Your task to perform on an android device: turn off smart reply in the gmail app Image 0: 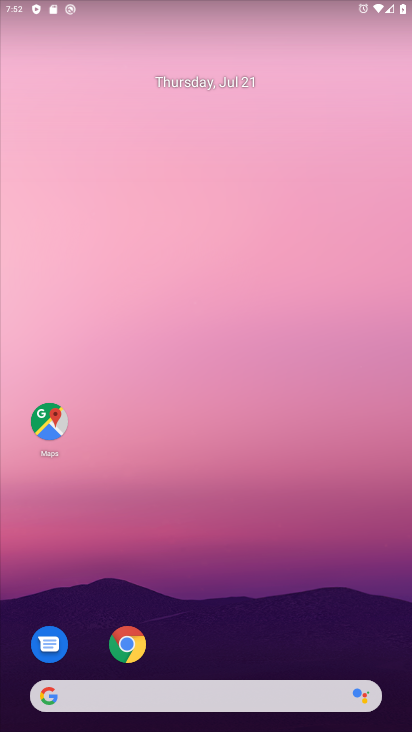
Step 0: drag from (285, 609) to (324, 139)
Your task to perform on an android device: turn off smart reply in the gmail app Image 1: 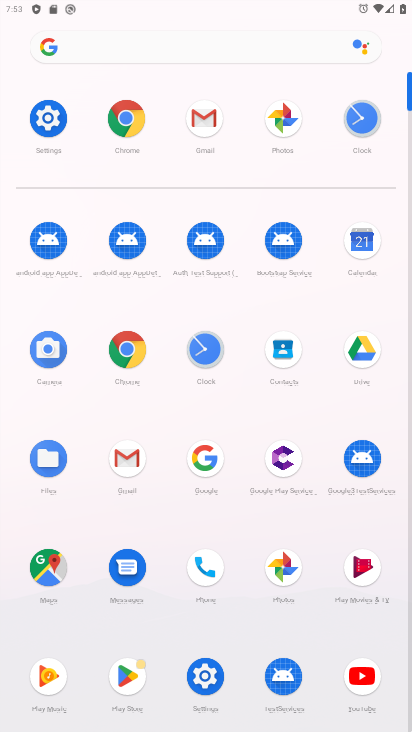
Step 1: click (128, 454)
Your task to perform on an android device: turn off smart reply in the gmail app Image 2: 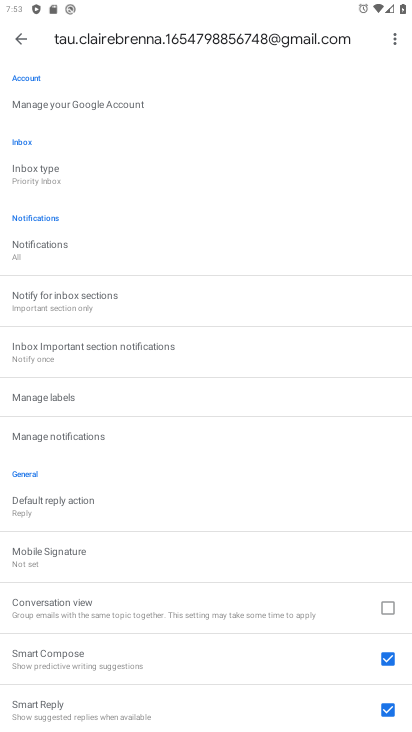
Step 2: drag from (281, 488) to (282, 388)
Your task to perform on an android device: turn off smart reply in the gmail app Image 3: 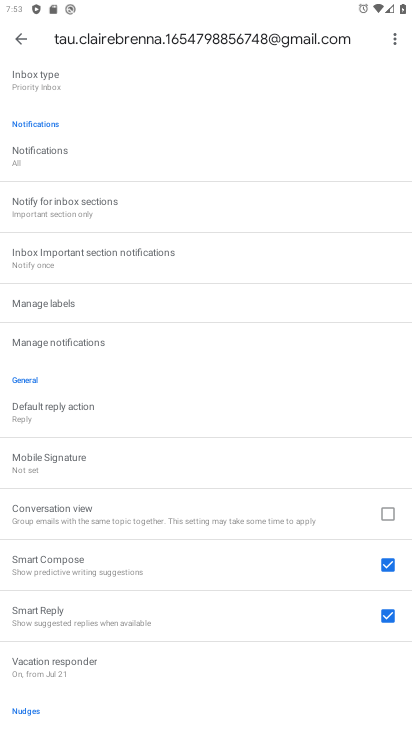
Step 3: drag from (271, 551) to (271, 439)
Your task to perform on an android device: turn off smart reply in the gmail app Image 4: 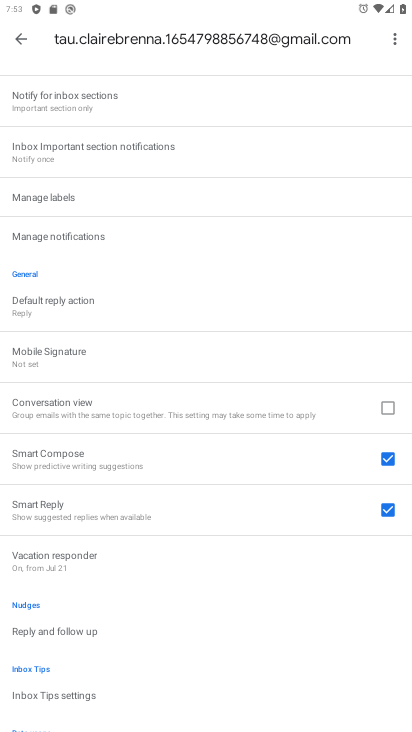
Step 4: drag from (276, 531) to (294, 388)
Your task to perform on an android device: turn off smart reply in the gmail app Image 5: 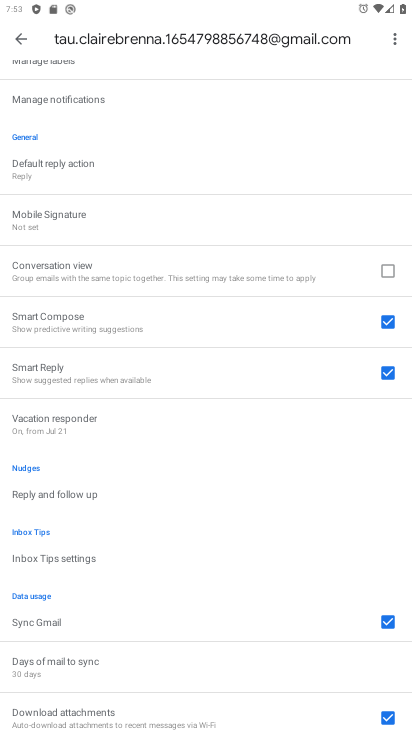
Step 5: drag from (314, 497) to (337, 370)
Your task to perform on an android device: turn off smart reply in the gmail app Image 6: 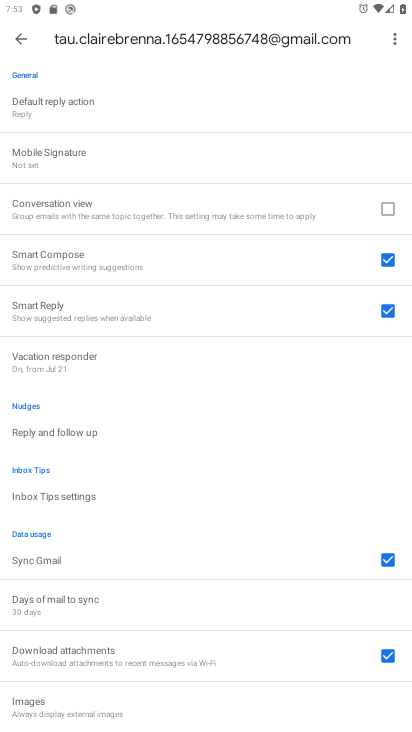
Step 6: click (392, 314)
Your task to perform on an android device: turn off smart reply in the gmail app Image 7: 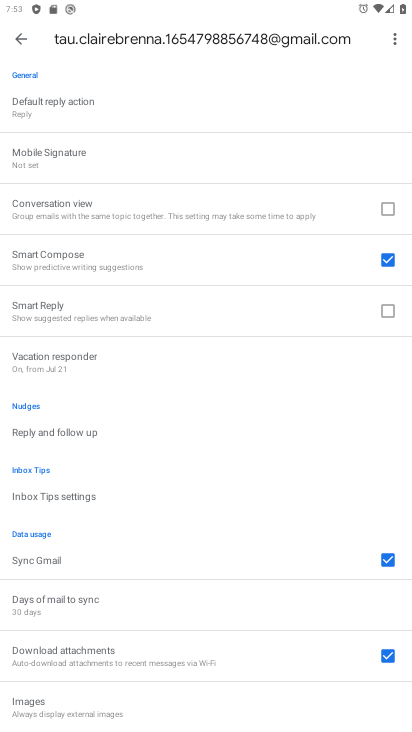
Step 7: task complete